Your task to perform on an android device: see sites visited before in the chrome app Image 0: 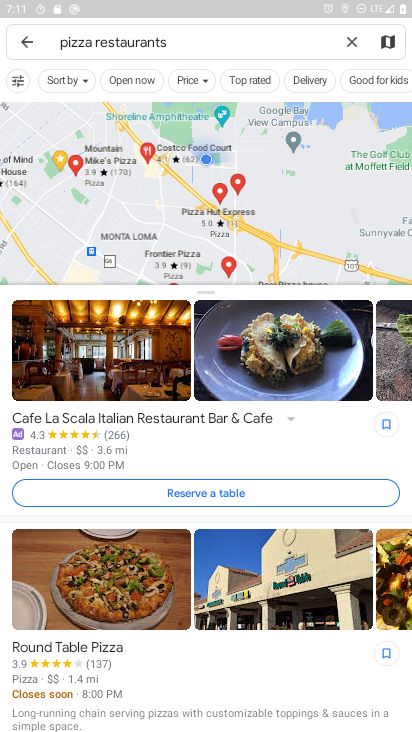
Step 0: press home button
Your task to perform on an android device: see sites visited before in the chrome app Image 1: 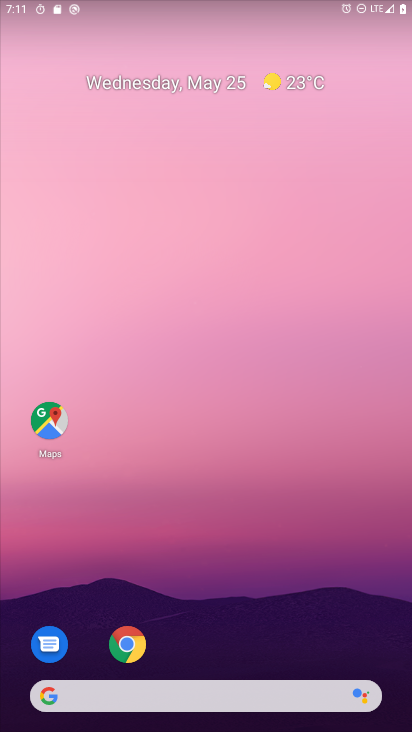
Step 1: drag from (402, 631) to (320, 14)
Your task to perform on an android device: see sites visited before in the chrome app Image 2: 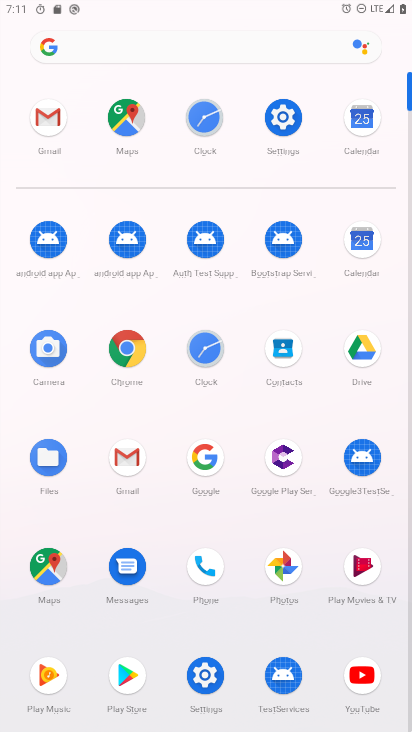
Step 2: click (120, 386)
Your task to perform on an android device: see sites visited before in the chrome app Image 3: 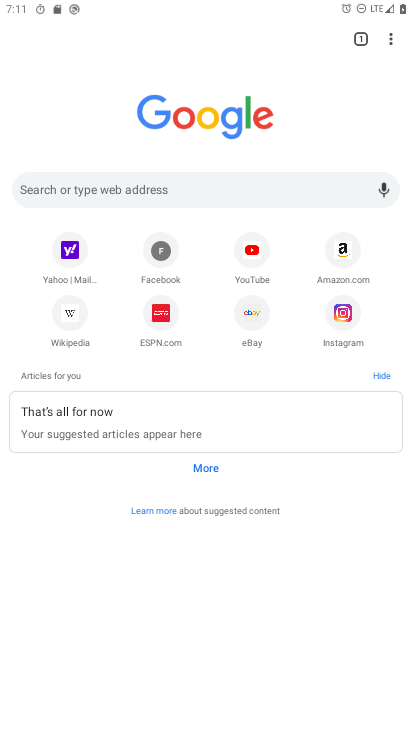
Step 3: click (398, 36)
Your task to perform on an android device: see sites visited before in the chrome app Image 4: 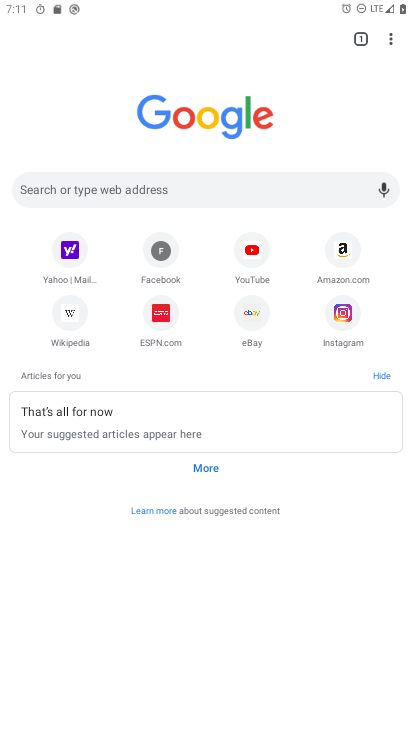
Step 4: click (393, 33)
Your task to perform on an android device: see sites visited before in the chrome app Image 5: 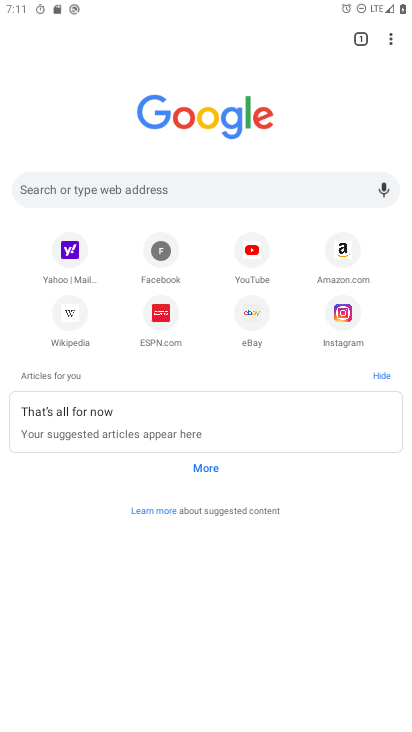
Step 5: click (388, 34)
Your task to perform on an android device: see sites visited before in the chrome app Image 6: 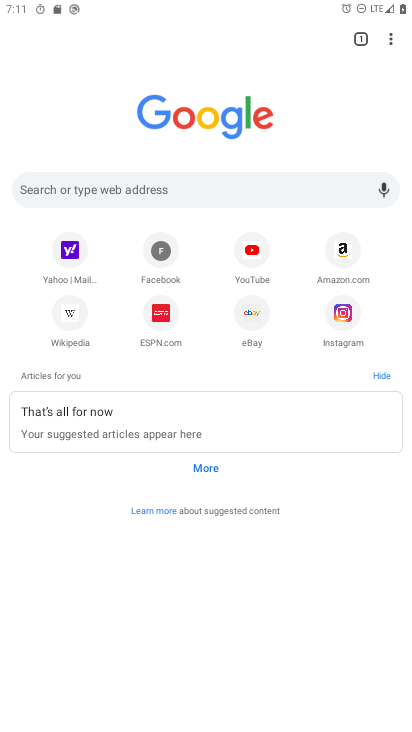
Step 6: click (388, 34)
Your task to perform on an android device: see sites visited before in the chrome app Image 7: 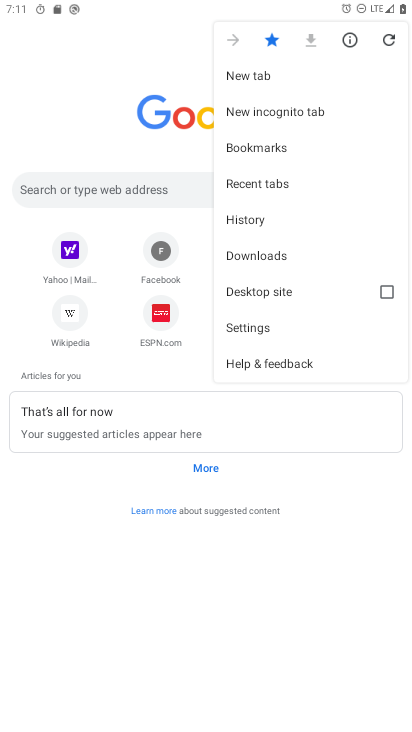
Step 7: click (267, 207)
Your task to perform on an android device: see sites visited before in the chrome app Image 8: 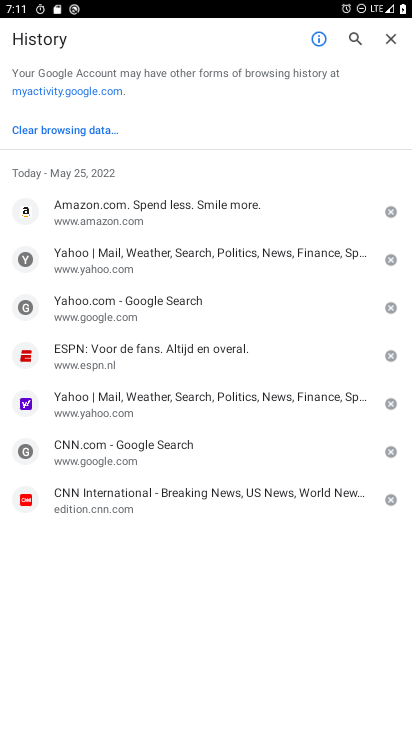
Step 8: click (127, 208)
Your task to perform on an android device: see sites visited before in the chrome app Image 9: 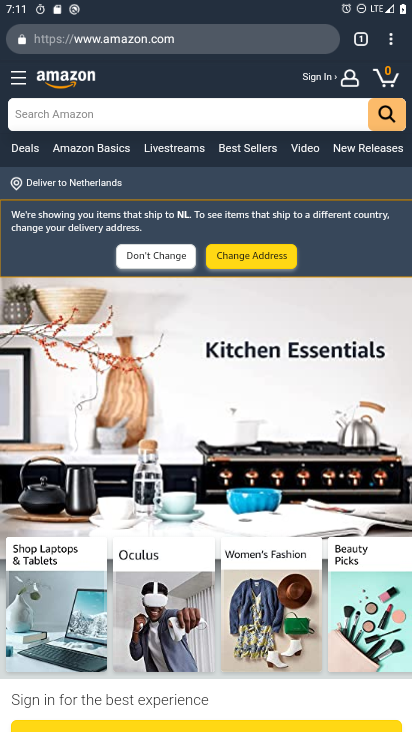
Step 9: task complete